Your task to perform on an android device: Search for "usb-a to usb-b" on costco.com, select the first entry, and add it to the cart. Image 0: 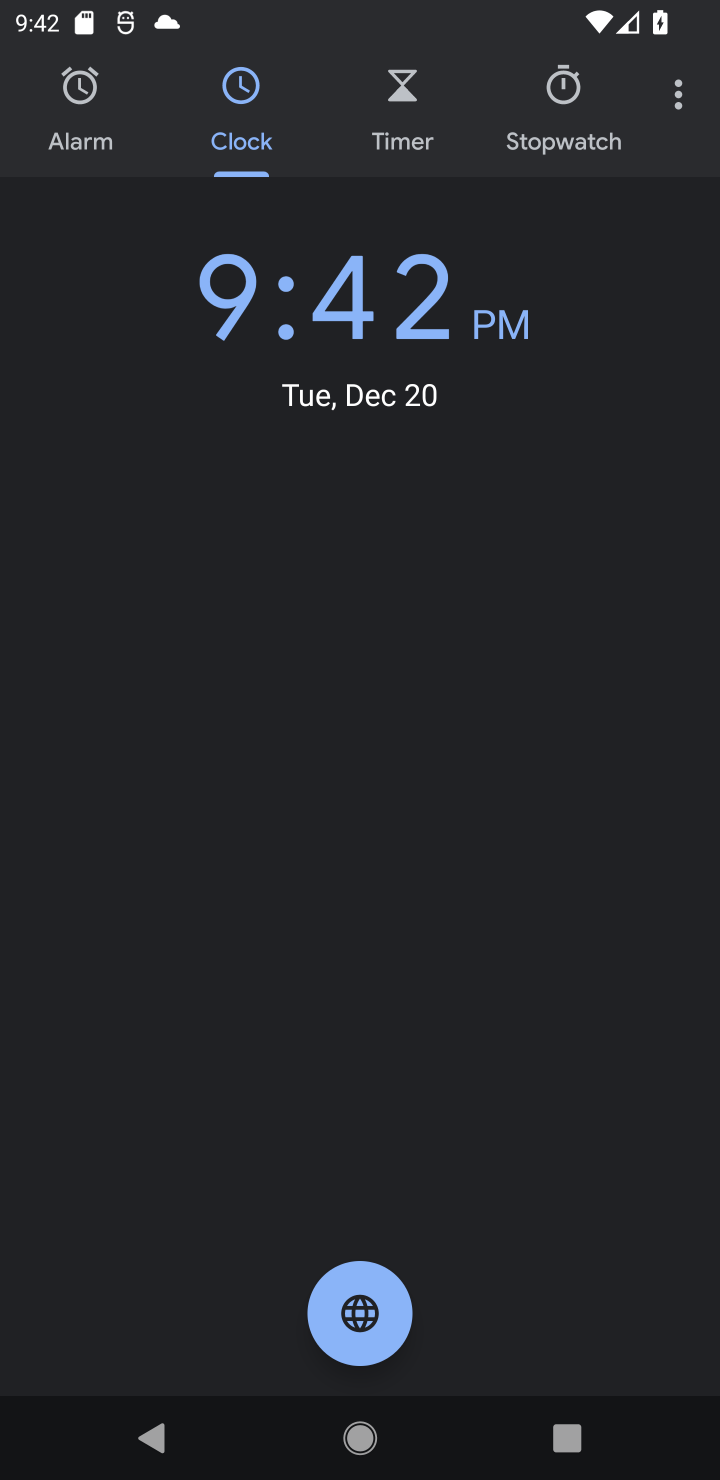
Step 0: press home button
Your task to perform on an android device: Search for "usb-a to usb-b" on costco.com, select the first entry, and add it to the cart. Image 1: 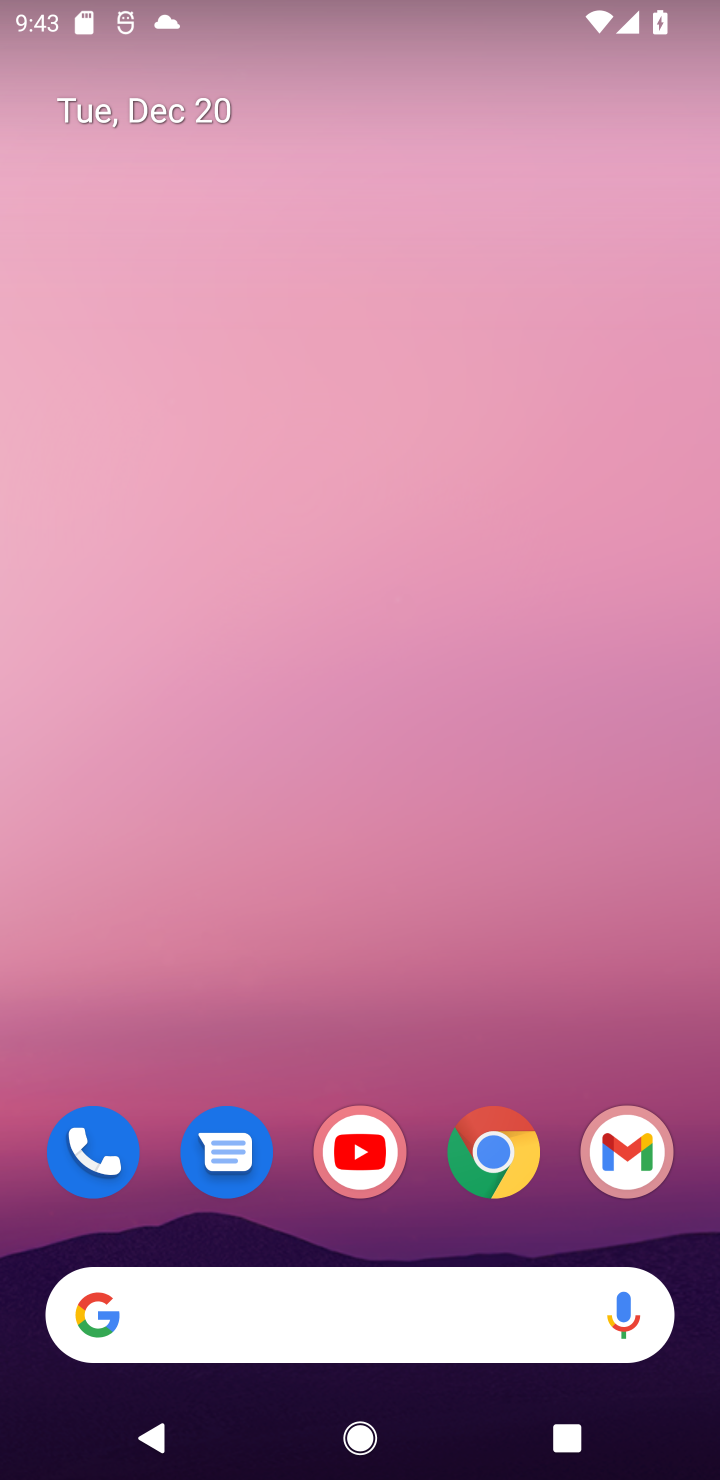
Step 1: click (457, 1148)
Your task to perform on an android device: Search for "usb-a to usb-b" on costco.com, select the first entry, and add it to the cart. Image 2: 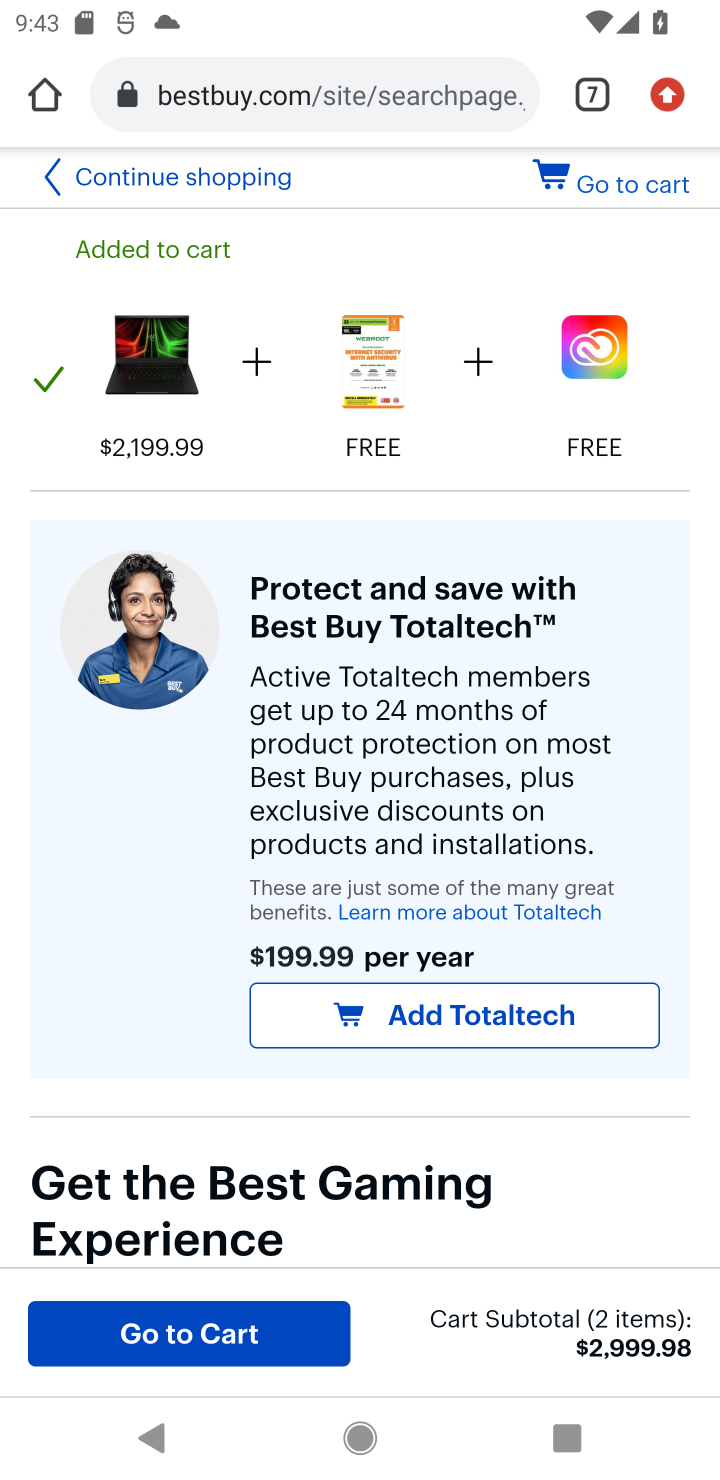
Step 2: click (594, 91)
Your task to perform on an android device: Search for "usb-a to usb-b" on costco.com, select the first entry, and add it to the cart. Image 3: 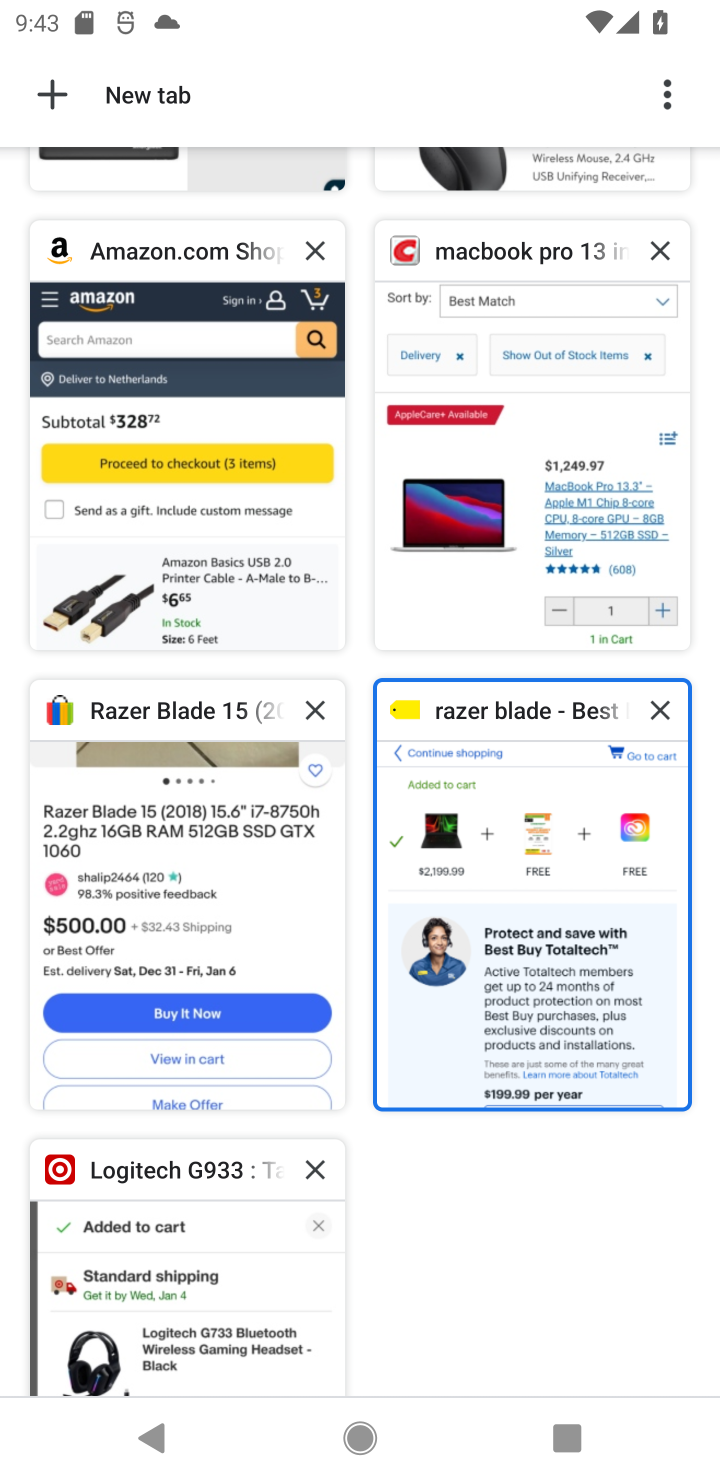
Step 3: click (469, 502)
Your task to perform on an android device: Search for "usb-a to usb-b" on costco.com, select the first entry, and add it to the cart. Image 4: 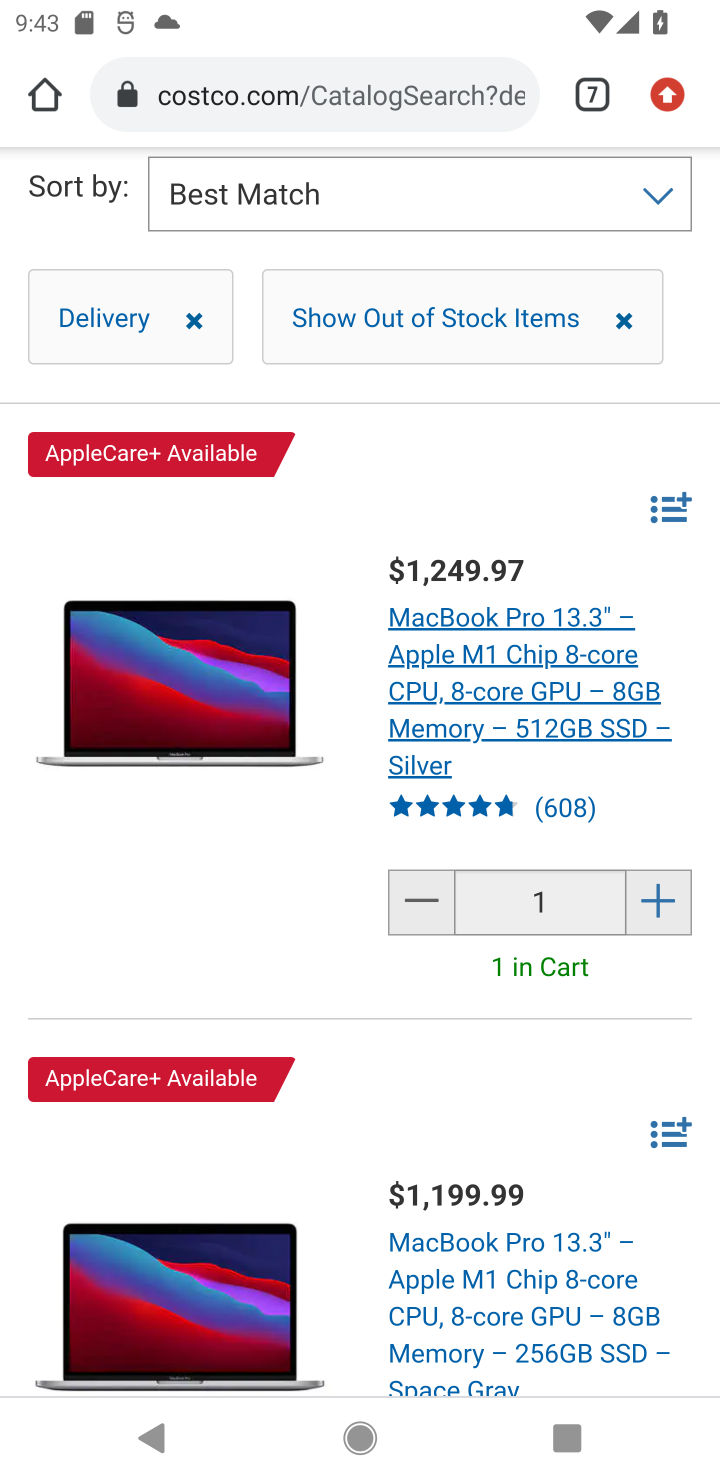
Step 4: drag from (483, 198) to (304, 1016)
Your task to perform on an android device: Search for "usb-a to usb-b" on costco.com, select the first entry, and add it to the cart. Image 5: 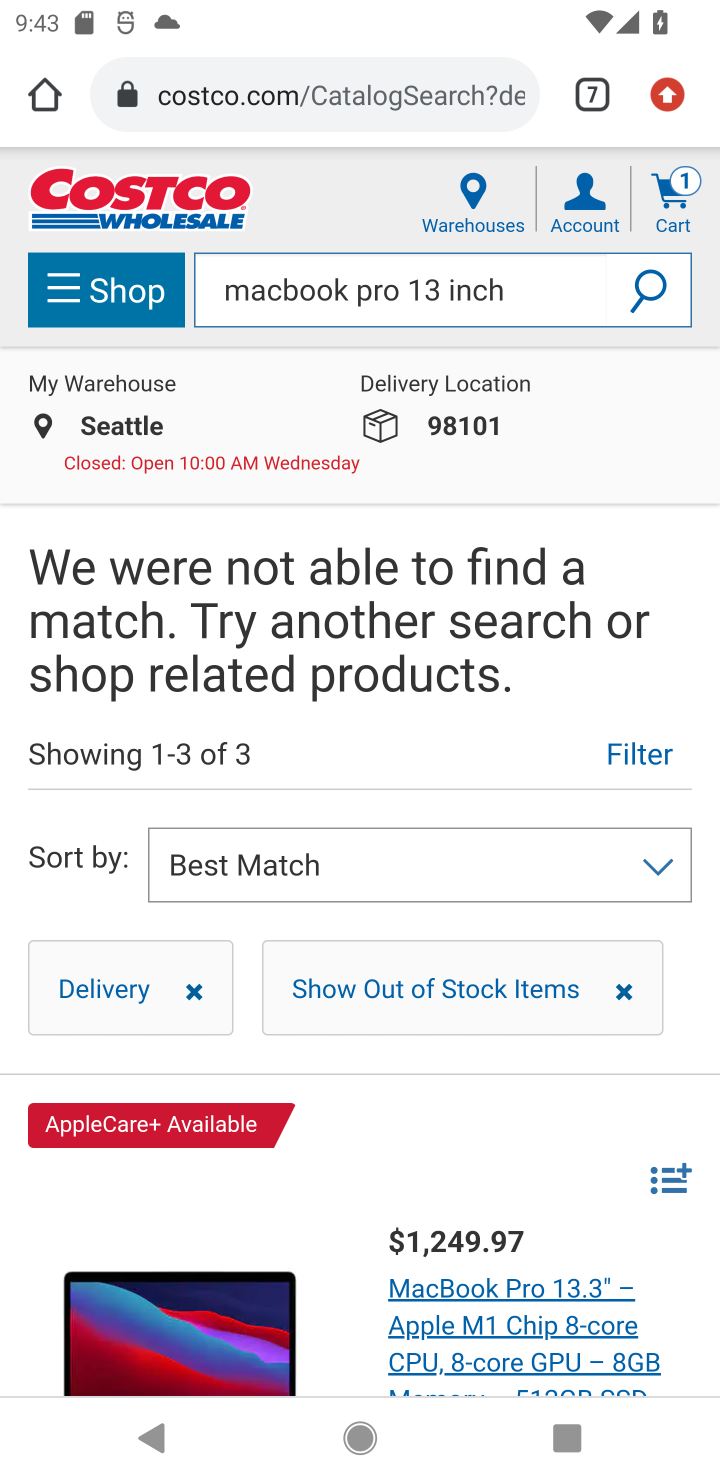
Step 5: click (493, 300)
Your task to perform on an android device: Search for "usb-a to usb-b" on costco.com, select the first entry, and add it to the cart. Image 6: 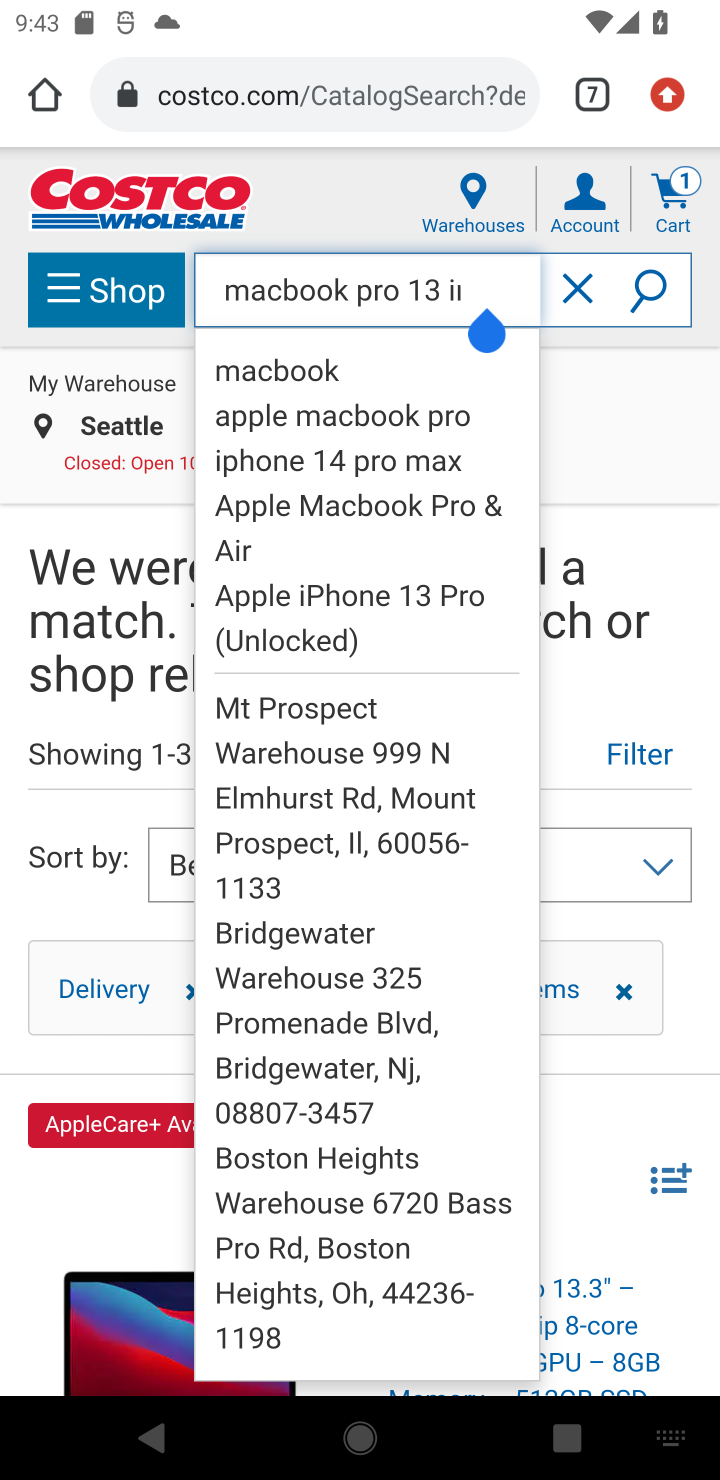
Step 6: click (576, 293)
Your task to perform on an android device: Search for "usb-a to usb-b" on costco.com, select the first entry, and add it to the cart. Image 7: 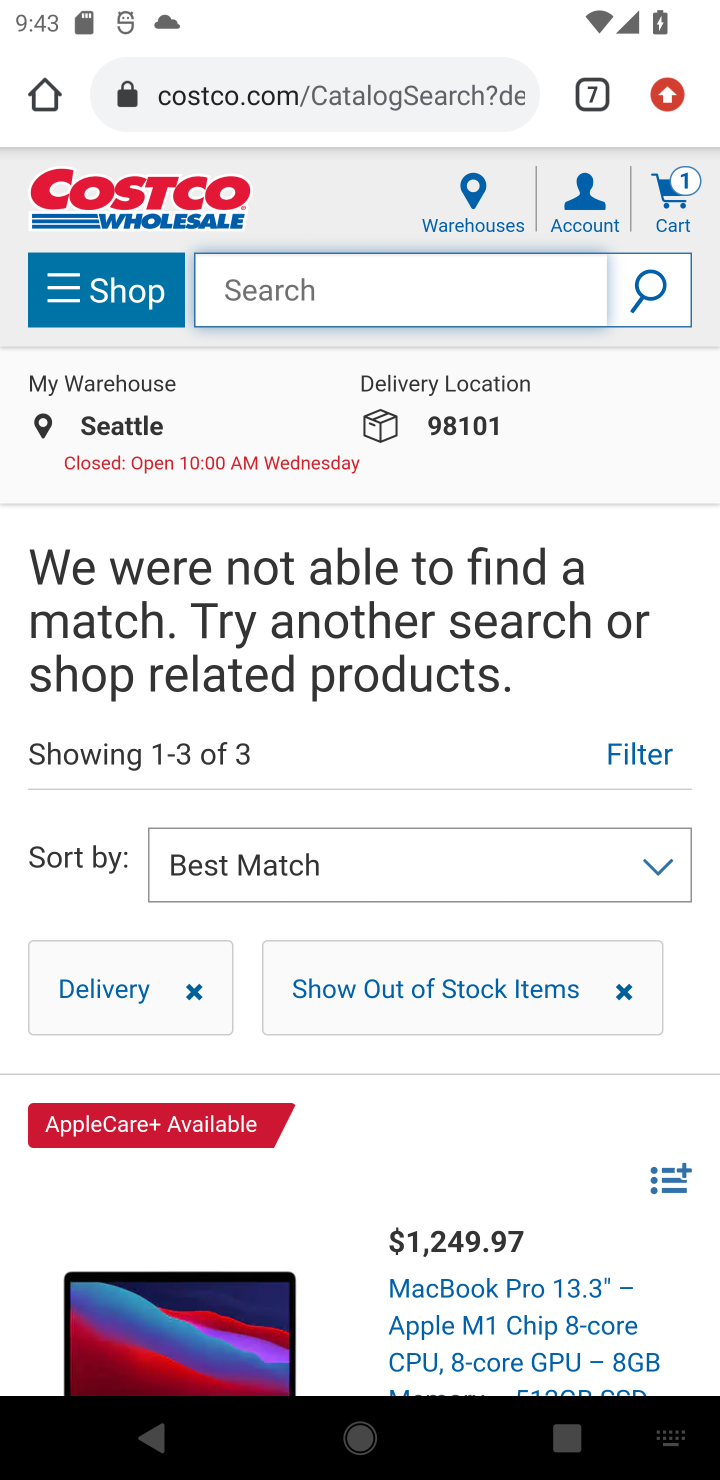
Step 7: type "usb-a to usb-b"
Your task to perform on an android device: Search for "usb-a to usb-b" on costco.com, select the first entry, and add it to the cart. Image 8: 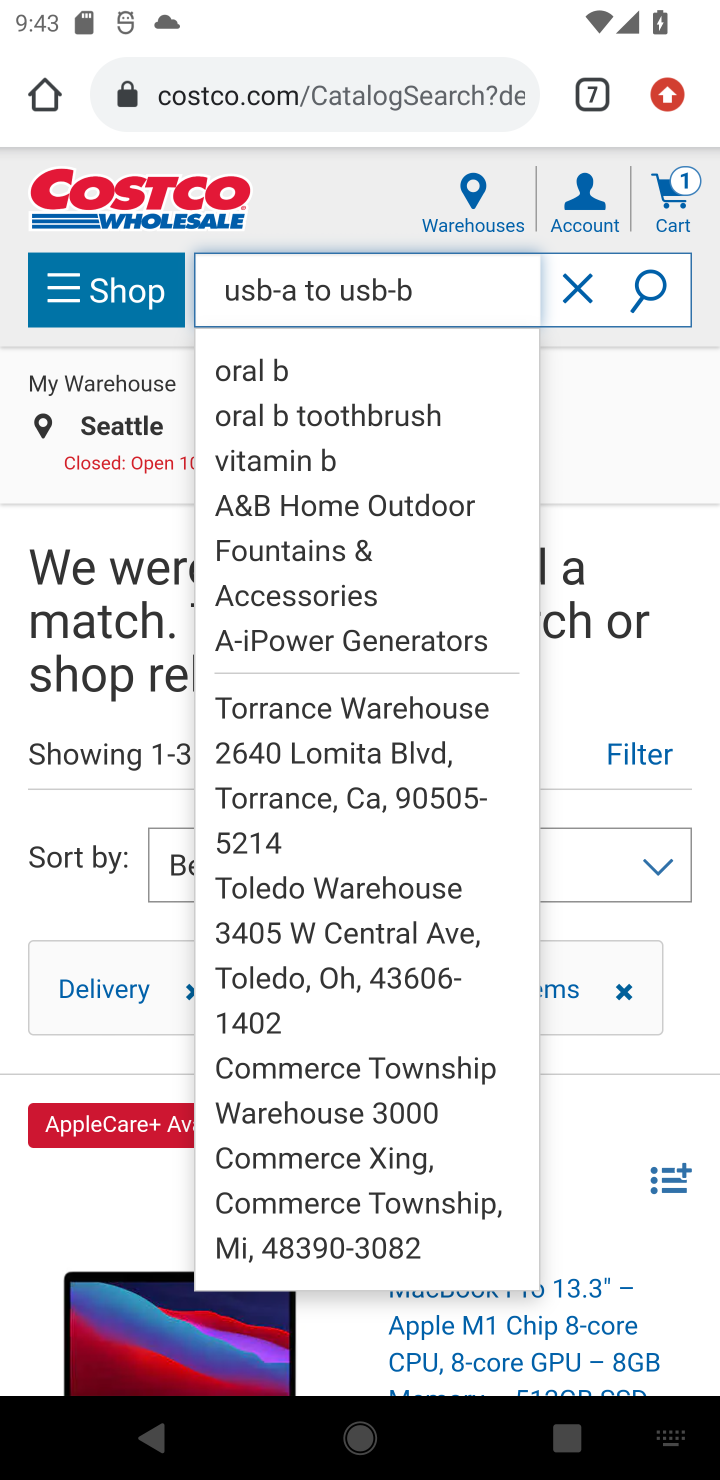
Step 8: click (650, 292)
Your task to perform on an android device: Search for "usb-a to usb-b" on costco.com, select the first entry, and add it to the cart. Image 9: 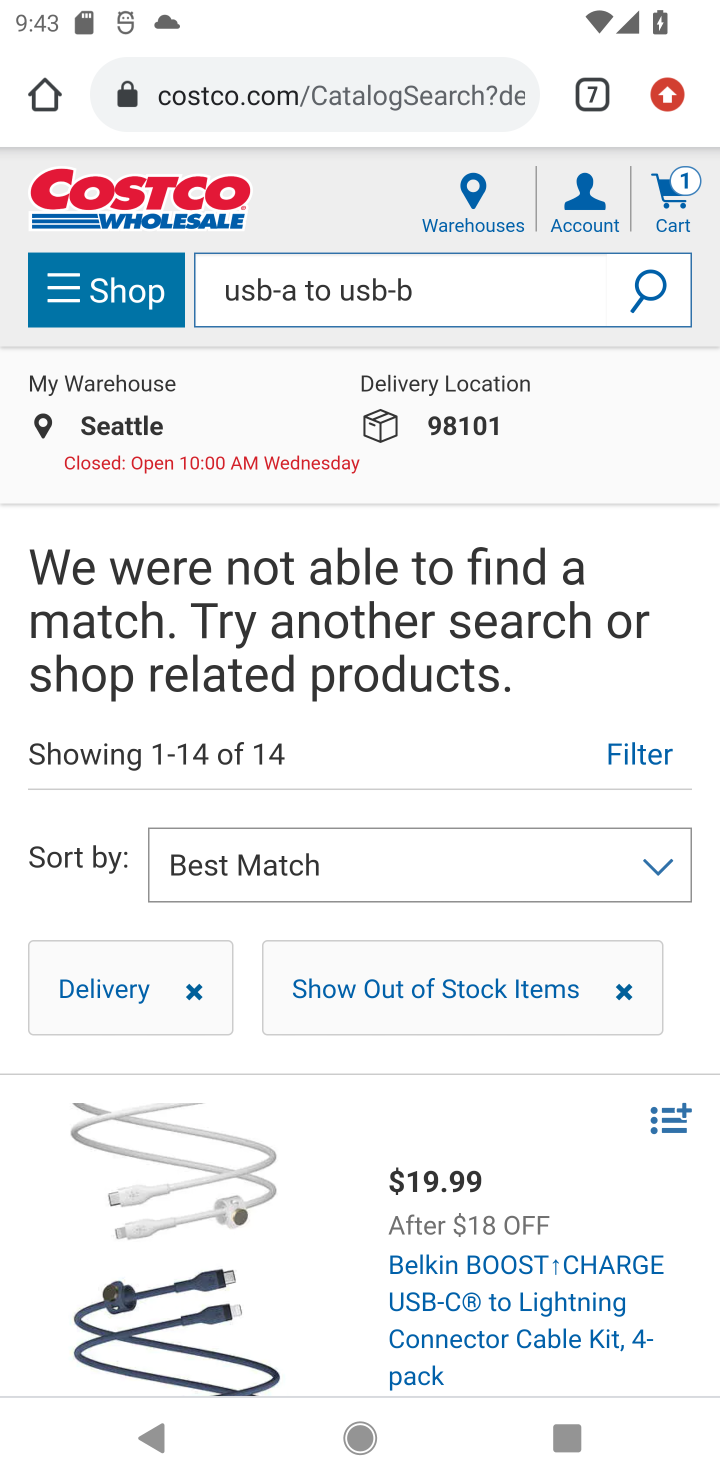
Step 9: task complete